Your task to perform on an android device: manage bookmarks in the chrome app Image 0: 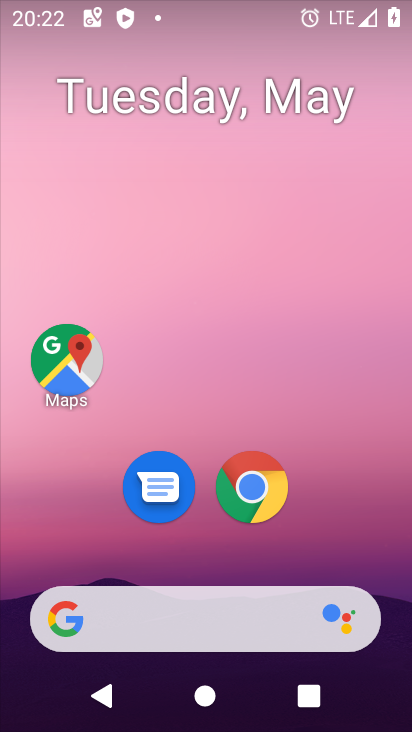
Step 0: click (261, 486)
Your task to perform on an android device: manage bookmarks in the chrome app Image 1: 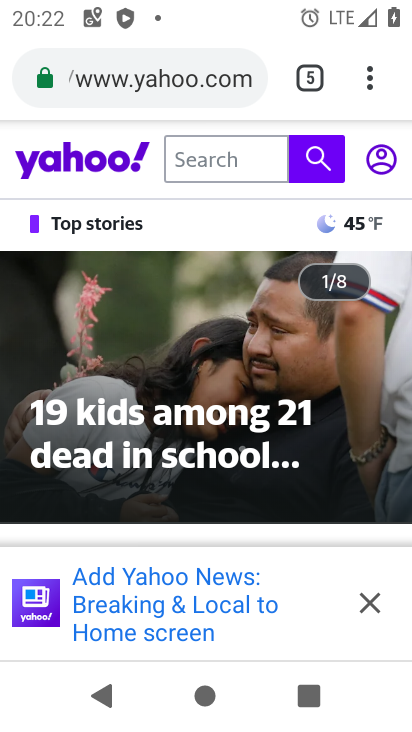
Step 1: click (374, 82)
Your task to perform on an android device: manage bookmarks in the chrome app Image 2: 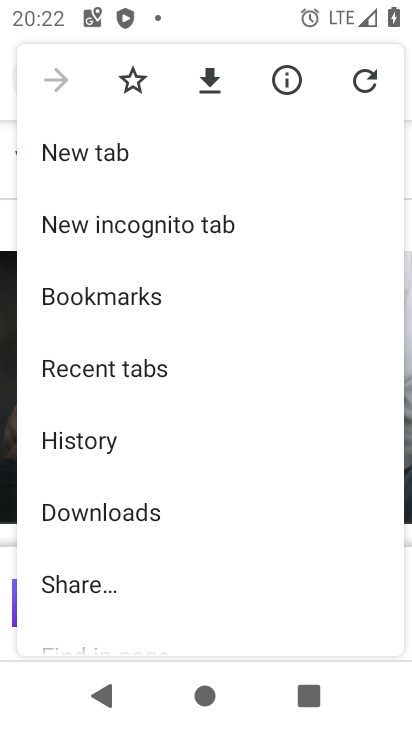
Step 2: click (128, 297)
Your task to perform on an android device: manage bookmarks in the chrome app Image 3: 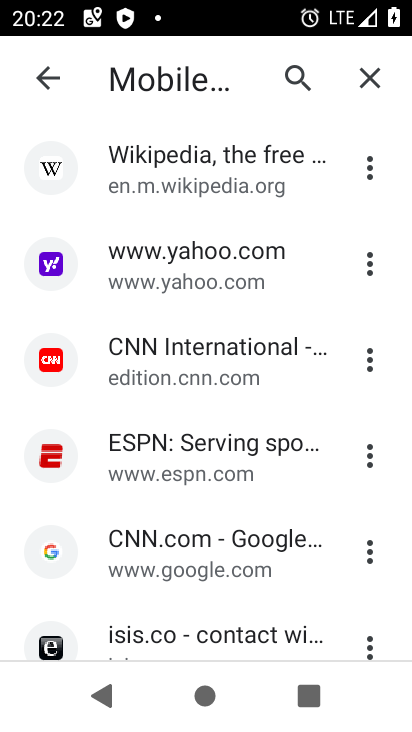
Step 3: click (370, 168)
Your task to perform on an android device: manage bookmarks in the chrome app Image 4: 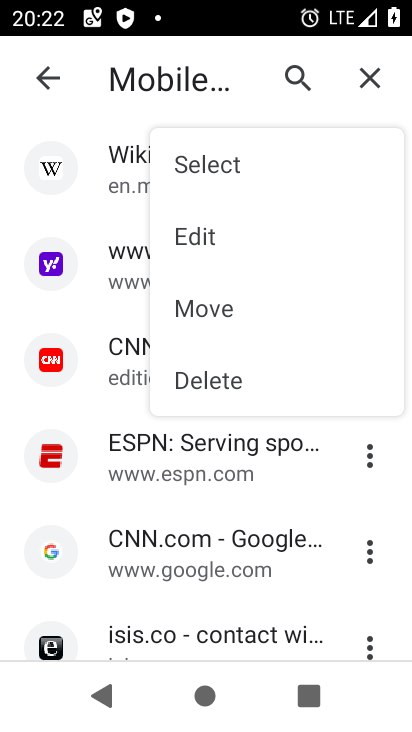
Step 4: click (199, 225)
Your task to perform on an android device: manage bookmarks in the chrome app Image 5: 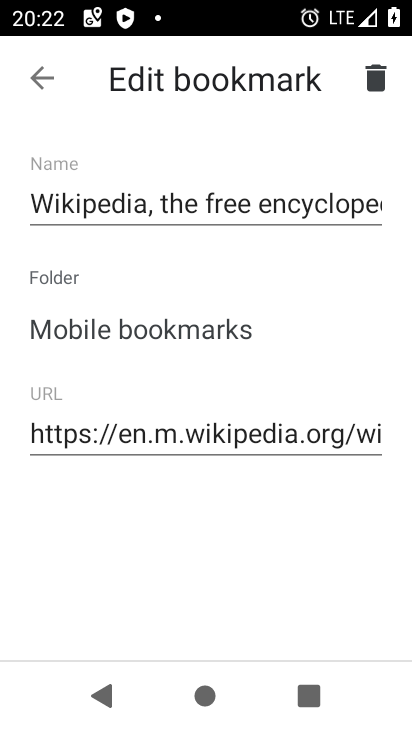
Step 5: task complete